Your task to perform on an android device: Check the weather Image 0: 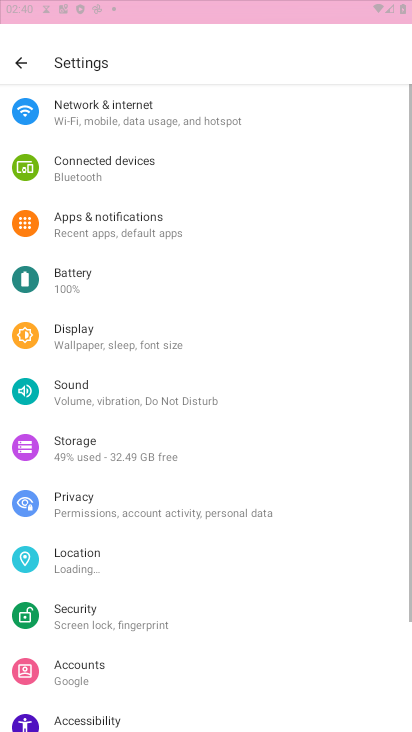
Step 0: press home button
Your task to perform on an android device: Check the weather Image 1: 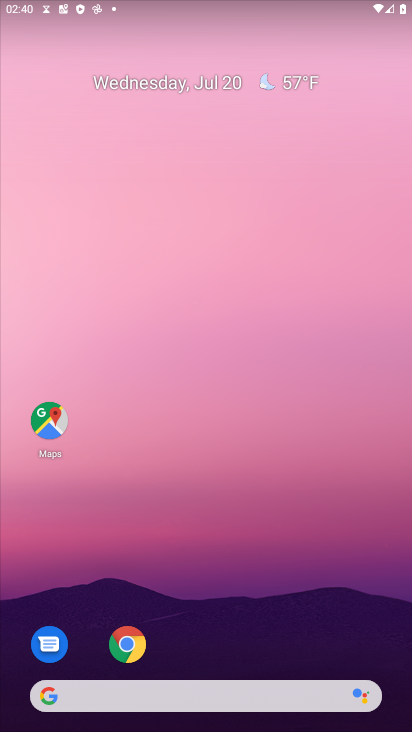
Step 1: click (37, 696)
Your task to perform on an android device: Check the weather Image 2: 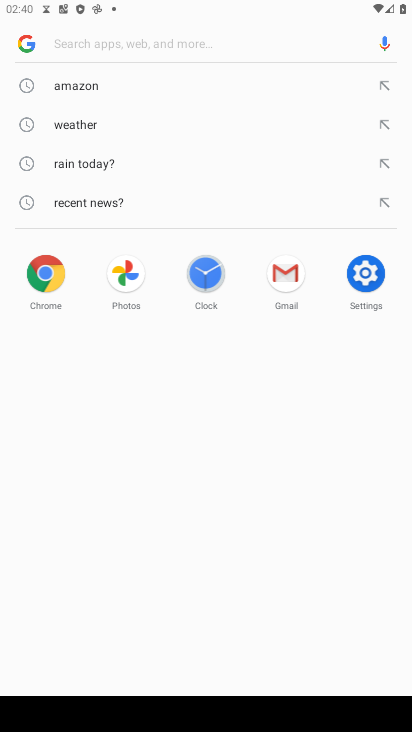
Step 2: click (85, 128)
Your task to perform on an android device: Check the weather Image 3: 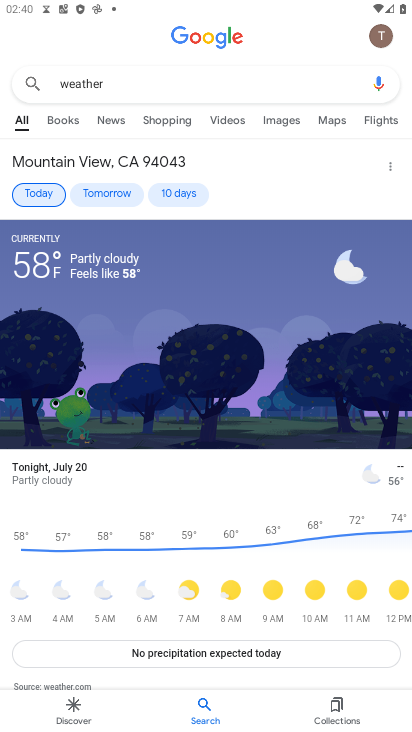
Step 3: task complete